Your task to perform on an android device: turn vacation reply on in the gmail app Image 0: 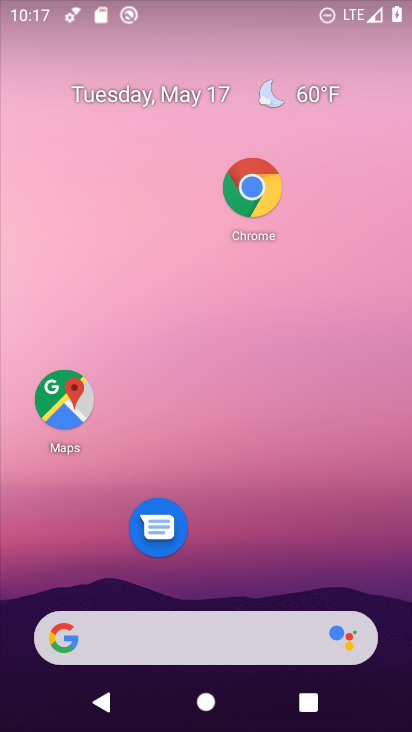
Step 0: drag from (317, 560) to (310, 171)
Your task to perform on an android device: turn vacation reply on in the gmail app Image 1: 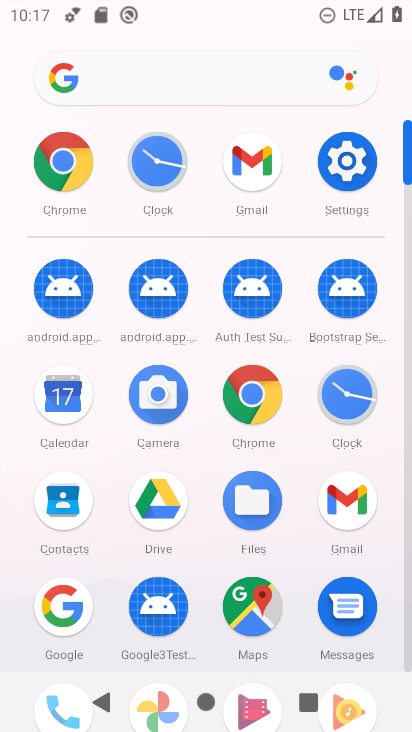
Step 1: click (244, 209)
Your task to perform on an android device: turn vacation reply on in the gmail app Image 2: 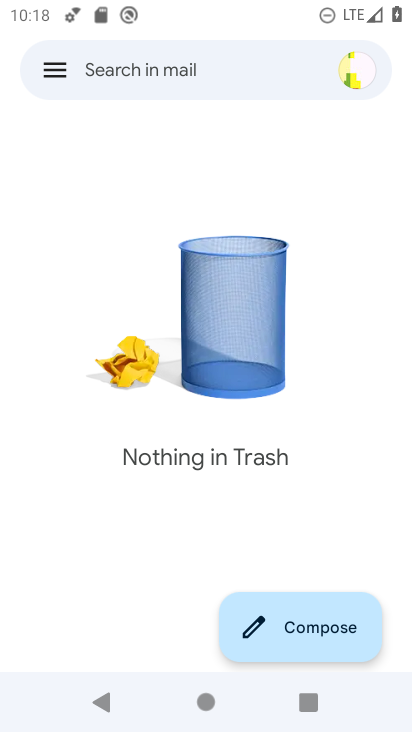
Step 2: click (58, 88)
Your task to perform on an android device: turn vacation reply on in the gmail app Image 3: 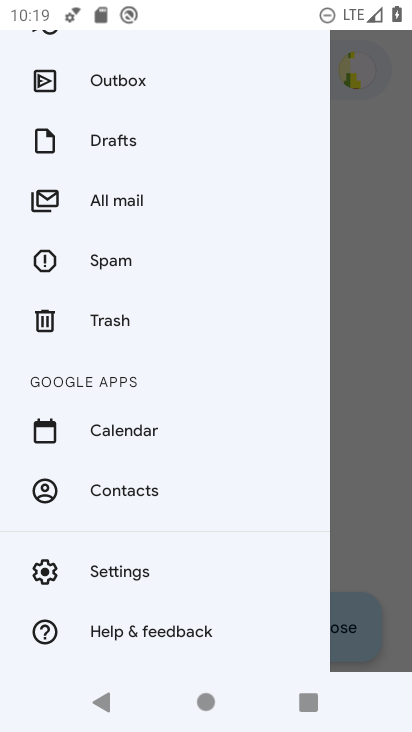
Step 3: click (24, 551)
Your task to perform on an android device: turn vacation reply on in the gmail app Image 4: 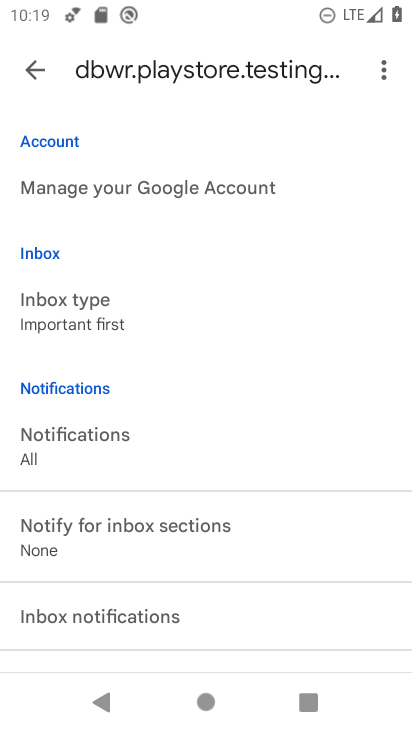
Step 4: drag from (149, 555) to (158, 341)
Your task to perform on an android device: turn vacation reply on in the gmail app Image 5: 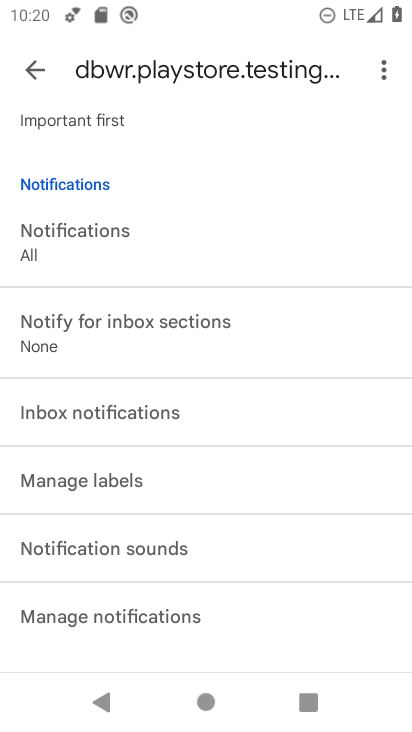
Step 5: drag from (162, 590) to (255, 226)
Your task to perform on an android device: turn vacation reply on in the gmail app Image 6: 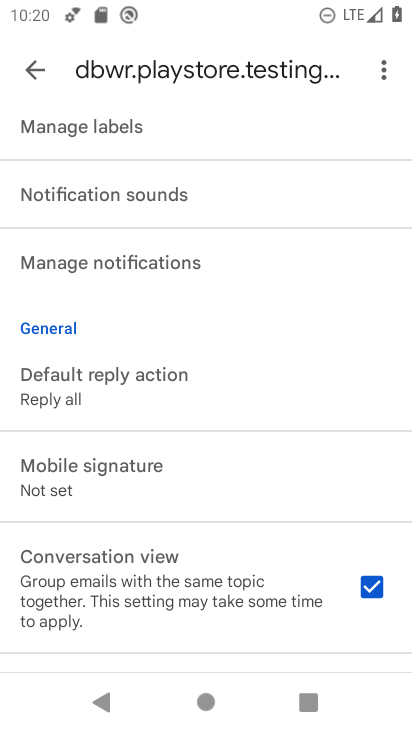
Step 6: drag from (162, 514) to (214, 164)
Your task to perform on an android device: turn vacation reply on in the gmail app Image 7: 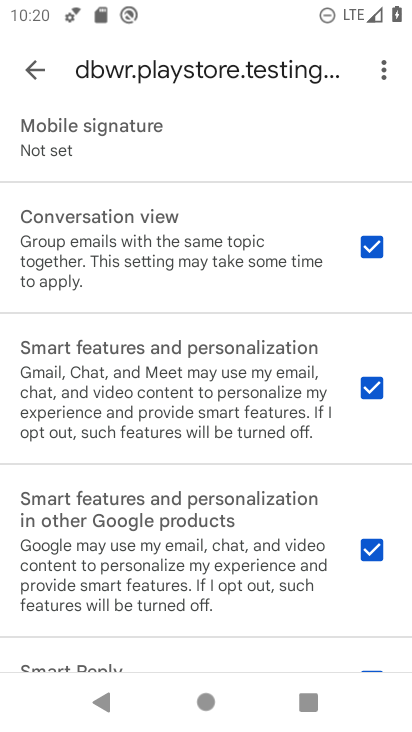
Step 7: drag from (183, 587) to (204, 252)
Your task to perform on an android device: turn vacation reply on in the gmail app Image 8: 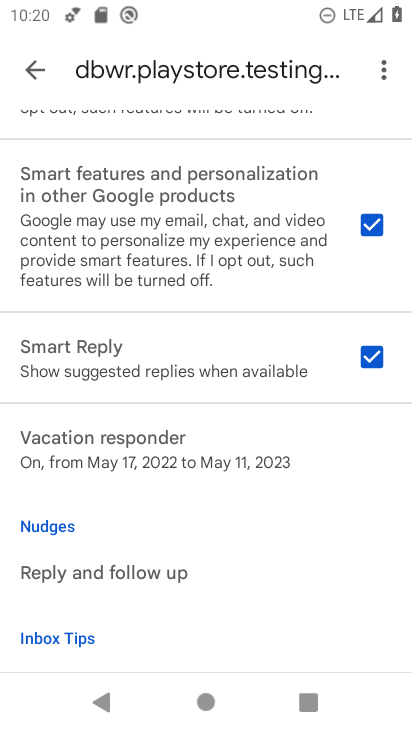
Step 8: click (233, 475)
Your task to perform on an android device: turn vacation reply on in the gmail app Image 9: 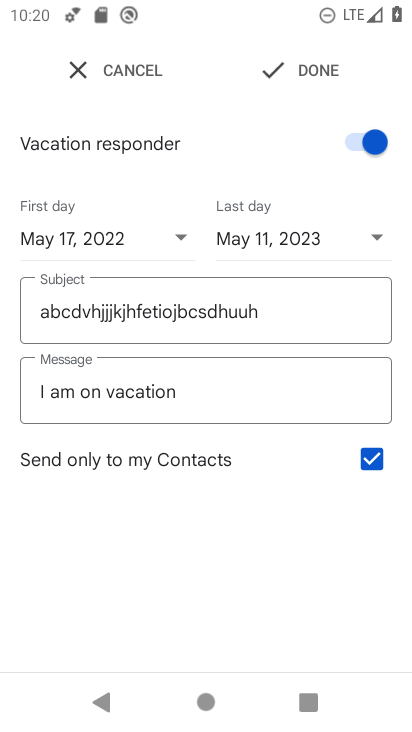
Step 9: click (344, 87)
Your task to perform on an android device: turn vacation reply on in the gmail app Image 10: 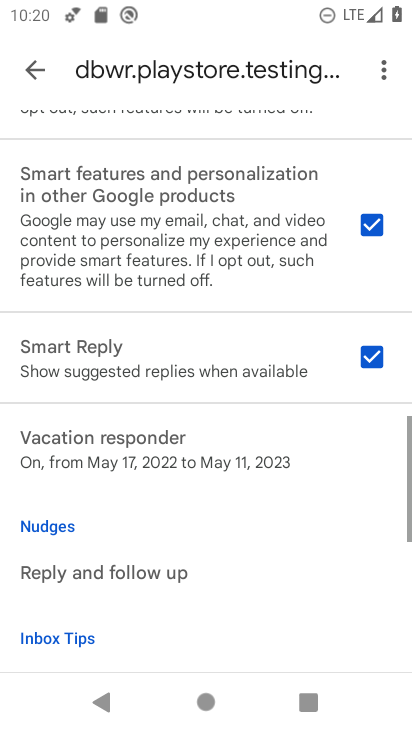
Step 10: task complete